Your task to perform on an android device: Open Google Image 0: 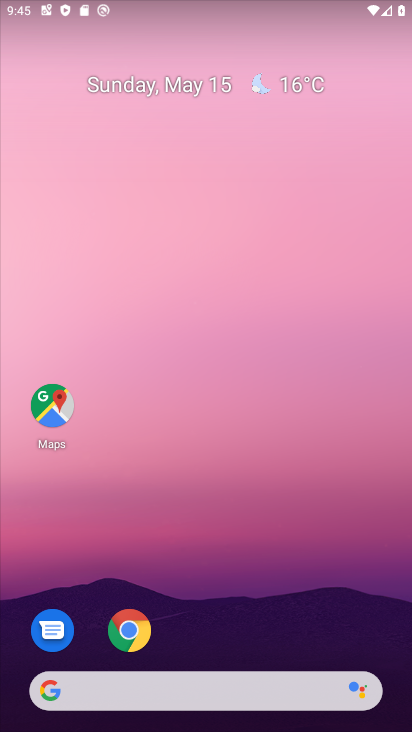
Step 0: drag from (214, 635) to (201, 144)
Your task to perform on an android device: Open Google Image 1: 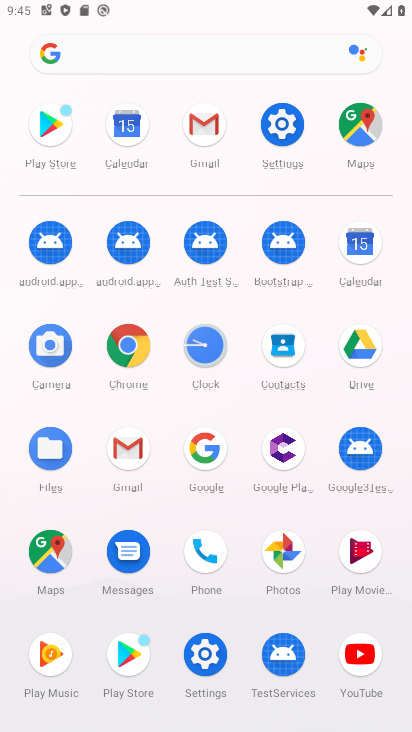
Step 1: click (206, 441)
Your task to perform on an android device: Open Google Image 2: 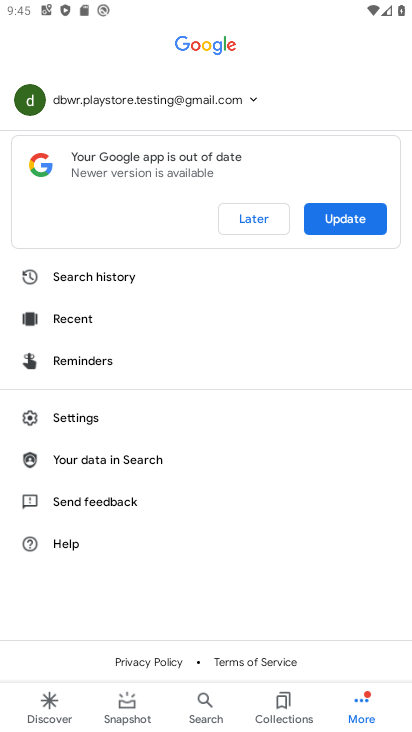
Step 2: click (48, 705)
Your task to perform on an android device: Open Google Image 3: 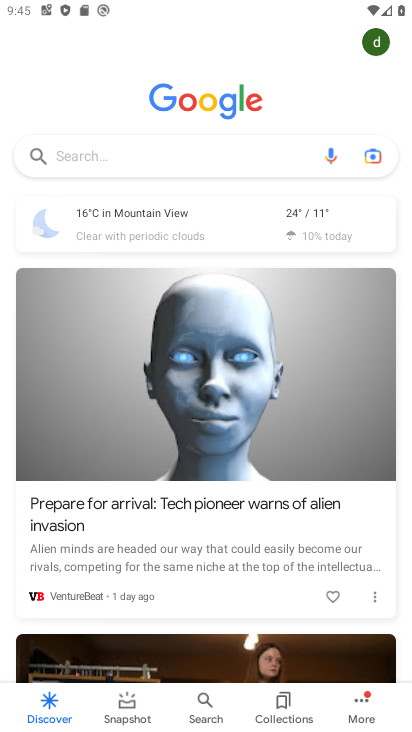
Step 3: task complete